Your task to perform on an android device: Go to battery settings Image 0: 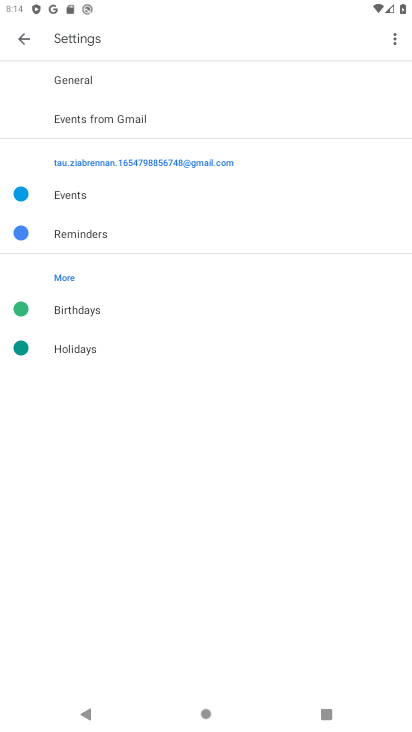
Step 0: press home button
Your task to perform on an android device: Go to battery settings Image 1: 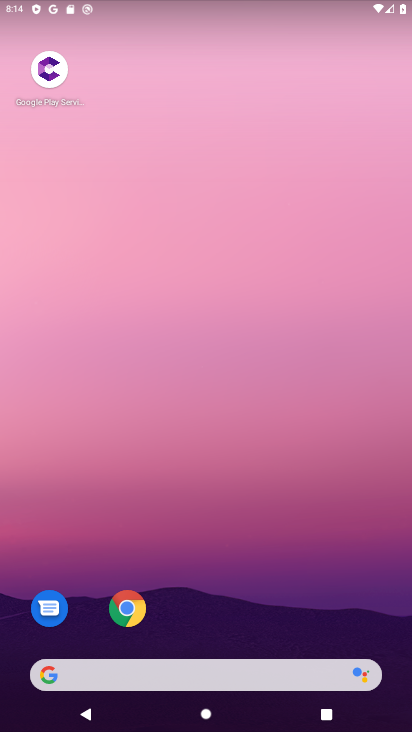
Step 1: drag from (8, 697) to (276, 101)
Your task to perform on an android device: Go to battery settings Image 2: 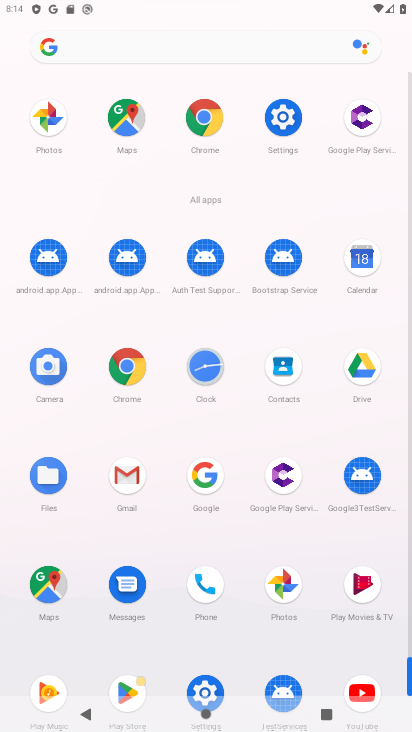
Step 2: click (200, 684)
Your task to perform on an android device: Go to battery settings Image 3: 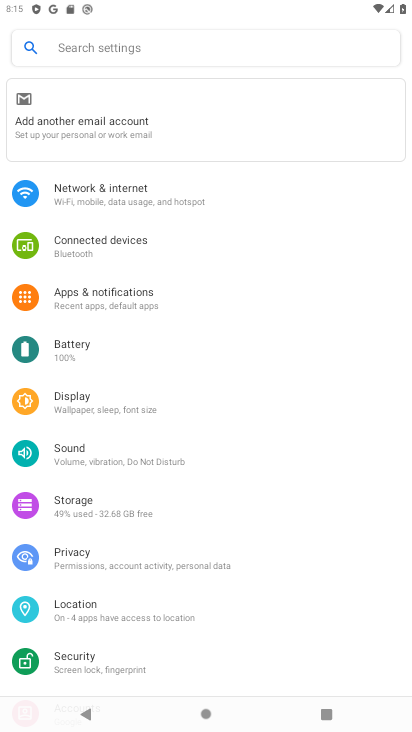
Step 3: click (68, 342)
Your task to perform on an android device: Go to battery settings Image 4: 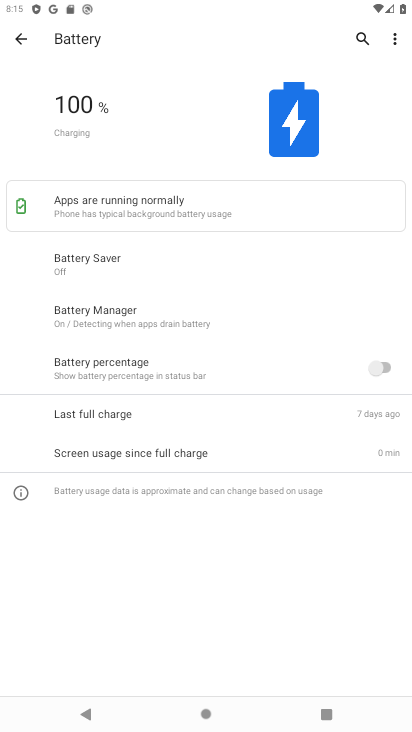
Step 4: task complete